Your task to perform on an android device: change text size in settings app Image 0: 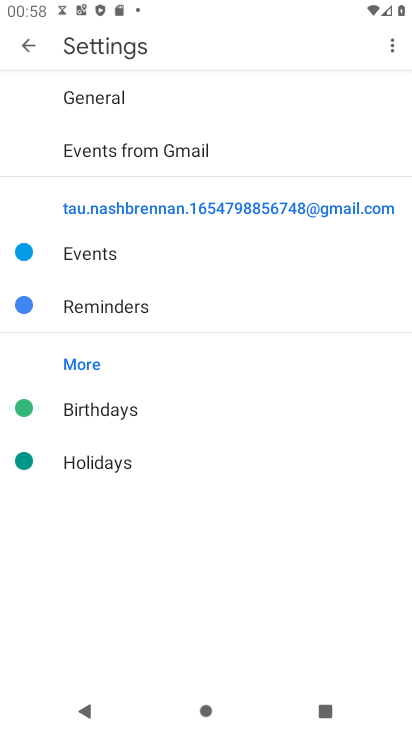
Step 0: press back button
Your task to perform on an android device: change text size in settings app Image 1: 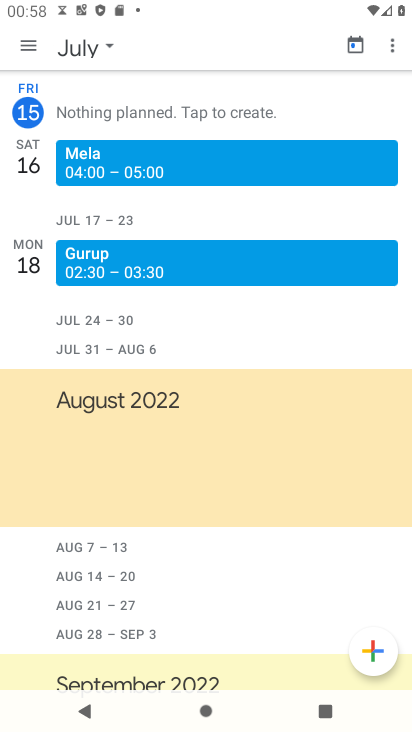
Step 1: press back button
Your task to perform on an android device: change text size in settings app Image 2: 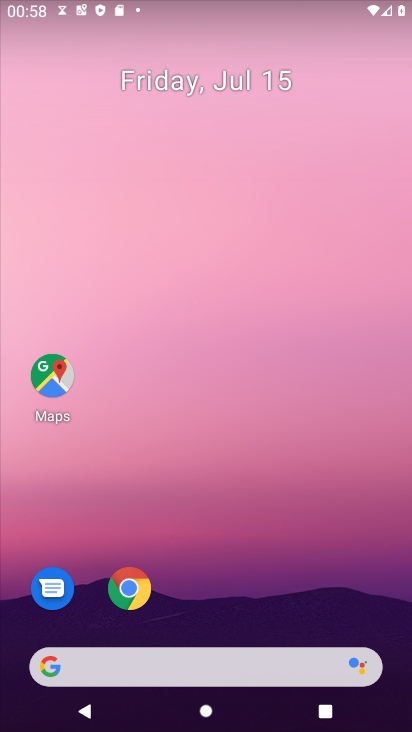
Step 2: drag from (237, 603) to (317, 15)
Your task to perform on an android device: change text size in settings app Image 3: 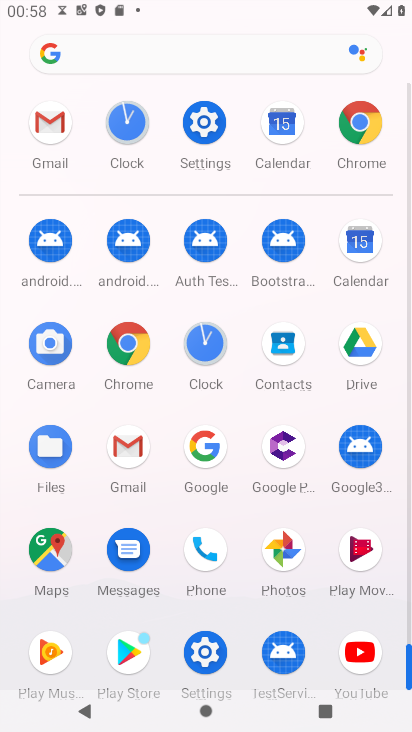
Step 3: click (174, 129)
Your task to perform on an android device: change text size in settings app Image 4: 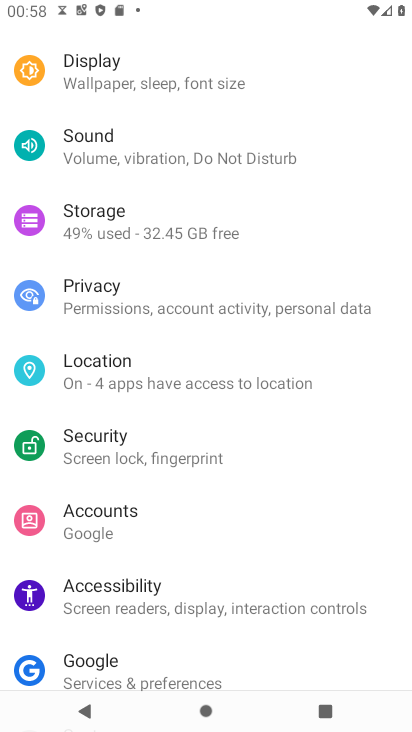
Step 4: drag from (185, 131) to (207, 714)
Your task to perform on an android device: change text size in settings app Image 5: 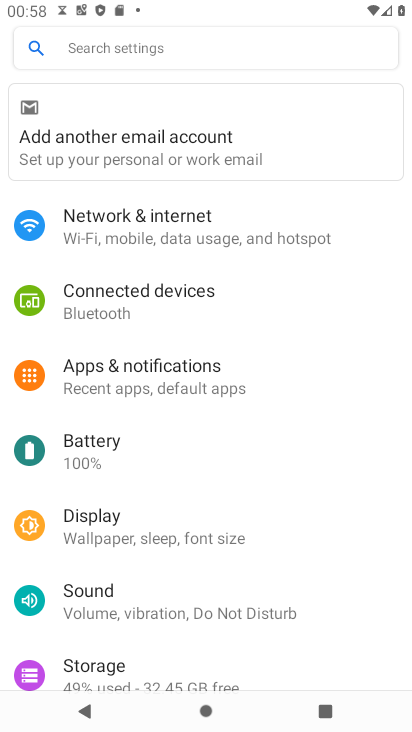
Step 5: click (139, 52)
Your task to perform on an android device: change text size in settings app Image 6: 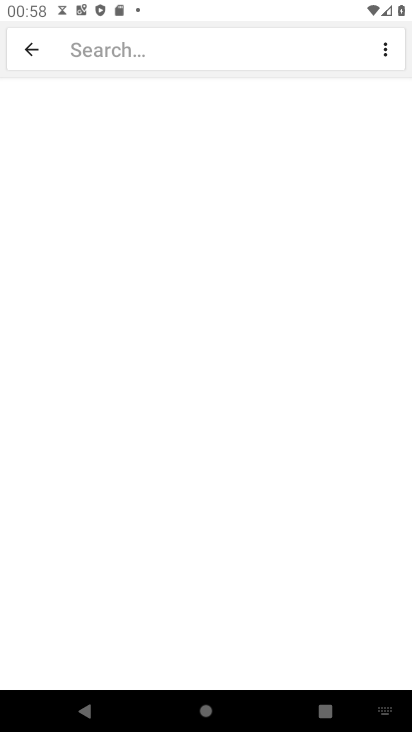
Step 6: type "text size"
Your task to perform on an android device: change text size in settings app Image 7: 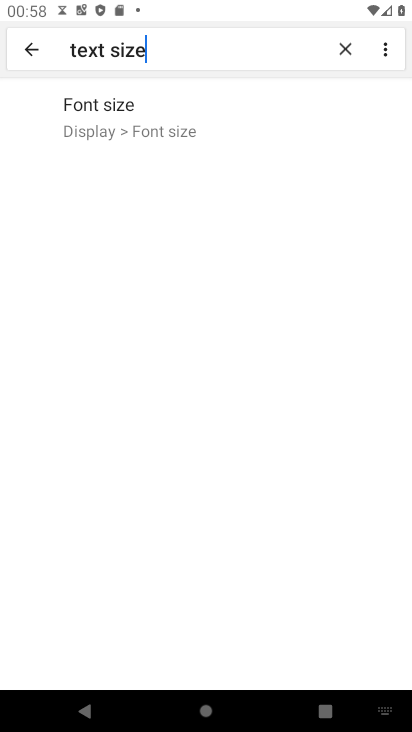
Step 7: click (139, 91)
Your task to perform on an android device: change text size in settings app Image 8: 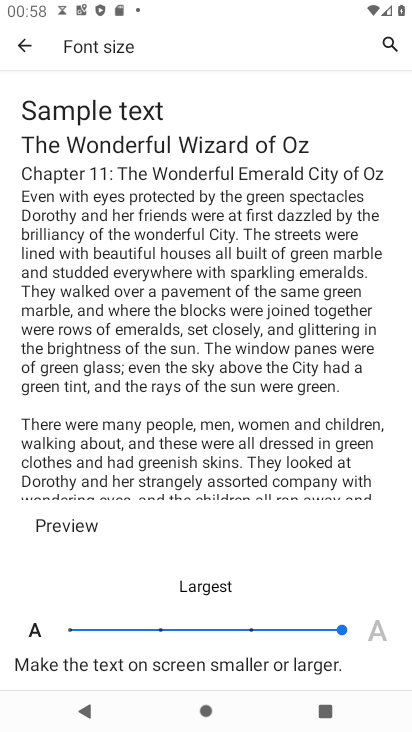
Step 8: click (252, 632)
Your task to perform on an android device: change text size in settings app Image 9: 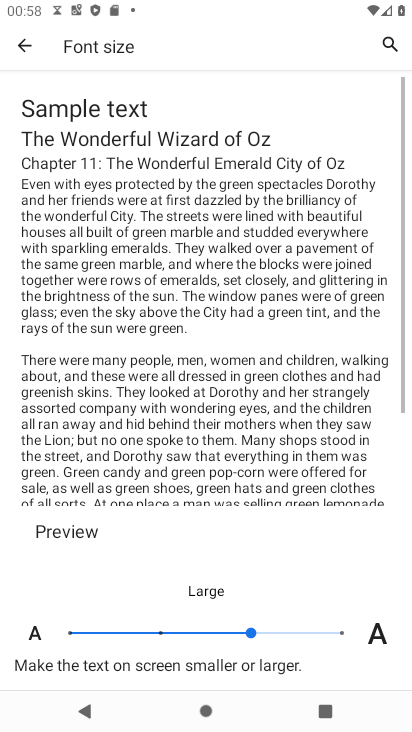
Step 9: task complete